Your task to perform on an android device: turn off notifications settings in the gmail app Image 0: 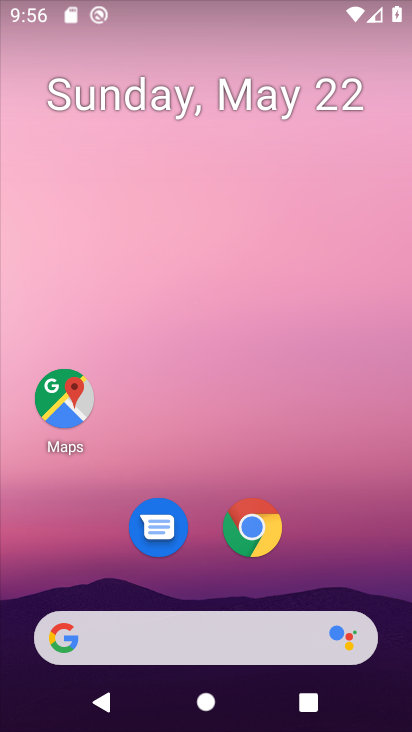
Step 0: drag from (254, 632) to (329, 135)
Your task to perform on an android device: turn off notifications settings in the gmail app Image 1: 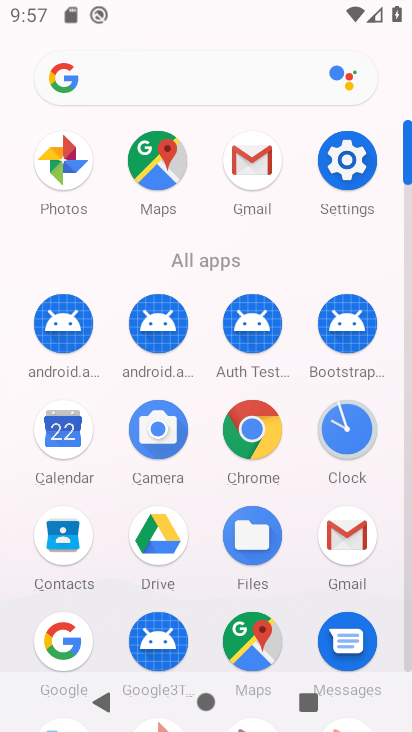
Step 1: click (254, 180)
Your task to perform on an android device: turn off notifications settings in the gmail app Image 2: 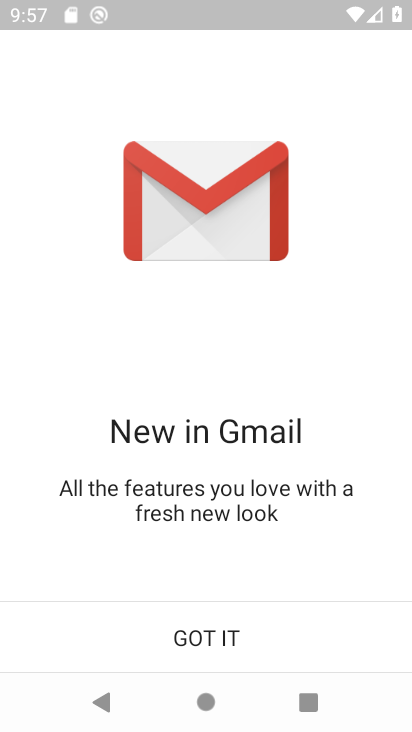
Step 2: click (215, 643)
Your task to perform on an android device: turn off notifications settings in the gmail app Image 3: 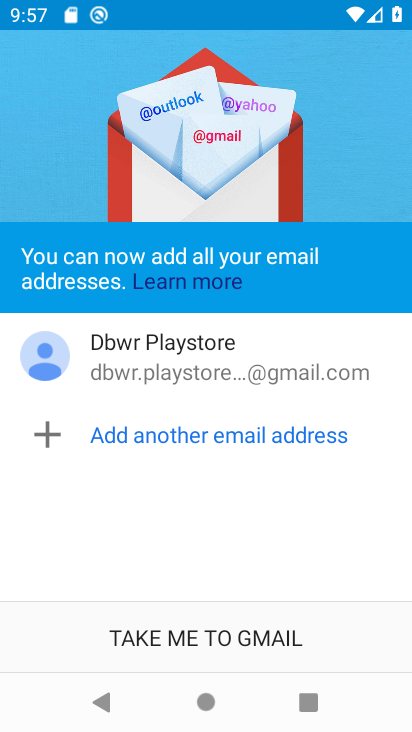
Step 3: click (217, 636)
Your task to perform on an android device: turn off notifications settings in the gmail app Image 4: 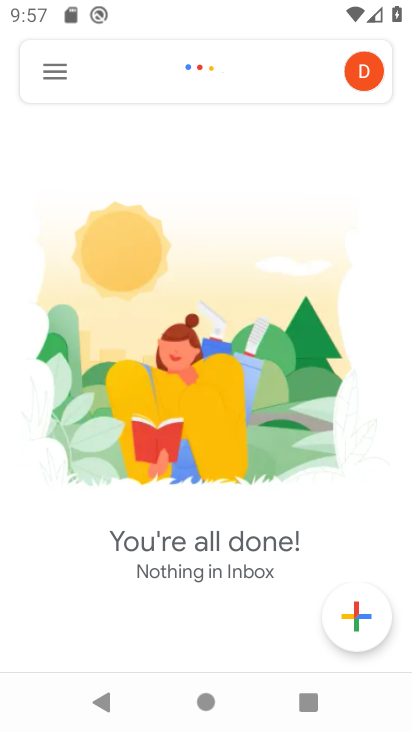
Step 4: click (65, 87)
Your task to perform on an android device: turn off notifications settings in the gmail app Image 5: 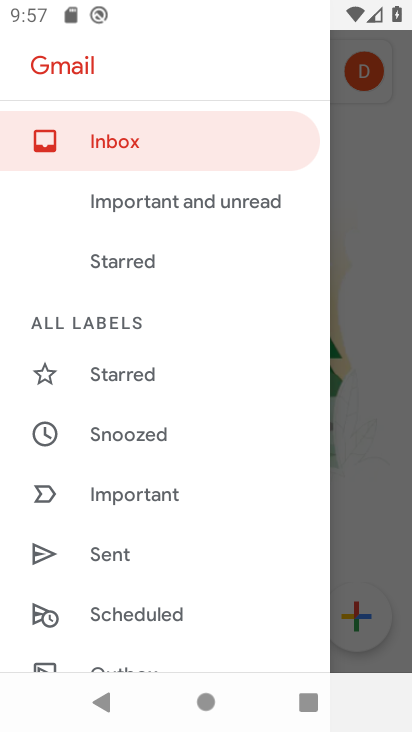
Step 5: drag from (114, 554) to (198, 121)
Your task to perform on an android device: turn off notifications settings in the gmail app Image 6: 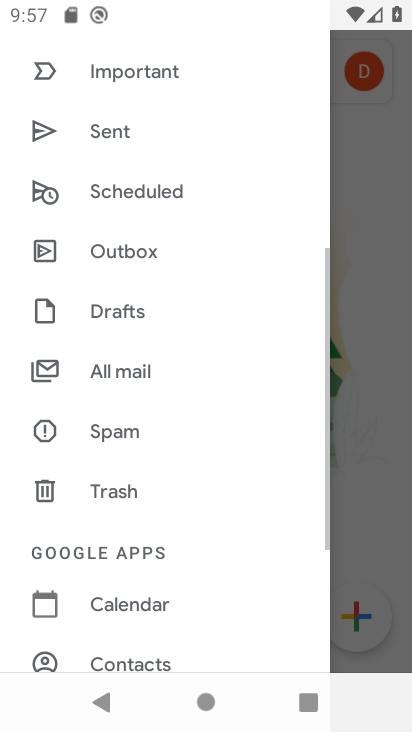
Step 6: drag from (117, 537) to (166, 140)
Your task to perform on an android device: turn off notifications settings in the gmail app Image 7: 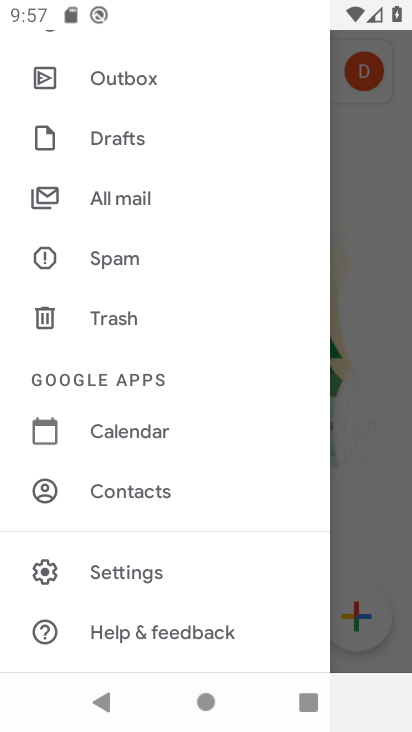
Step 7: click (120, 576)
Your task to perform on an android device: turn off notifications settings in the gmail app Image 8: 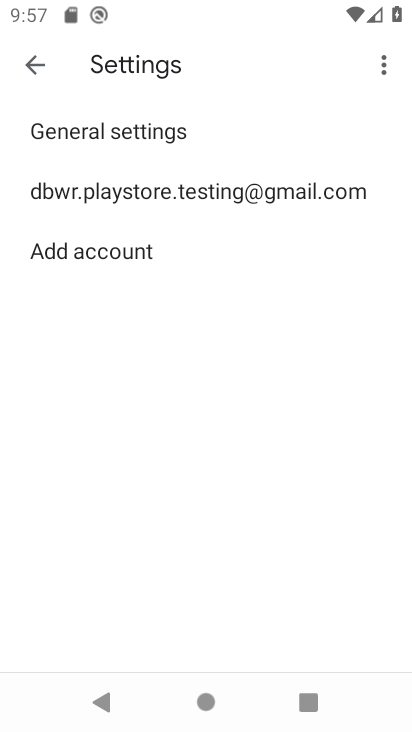
Step 8: click (176, 135)
Your task to perform on an android device: turn off notifications settings in the gmail app Image 9: 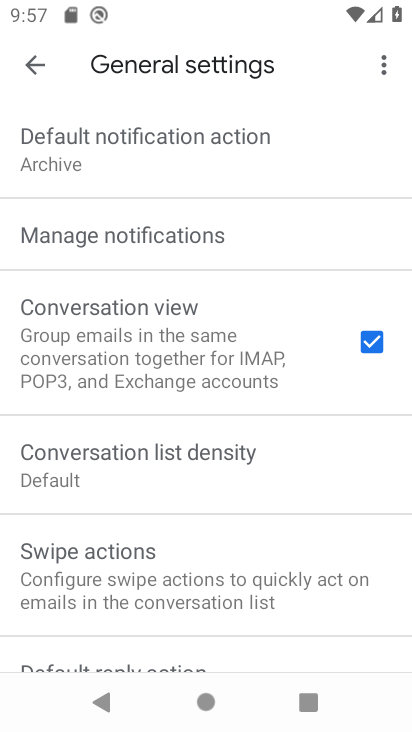
Step 9: click (201, 237)
Your task to perform on an android device: turn off notifications settings in the gmail app Image 10: 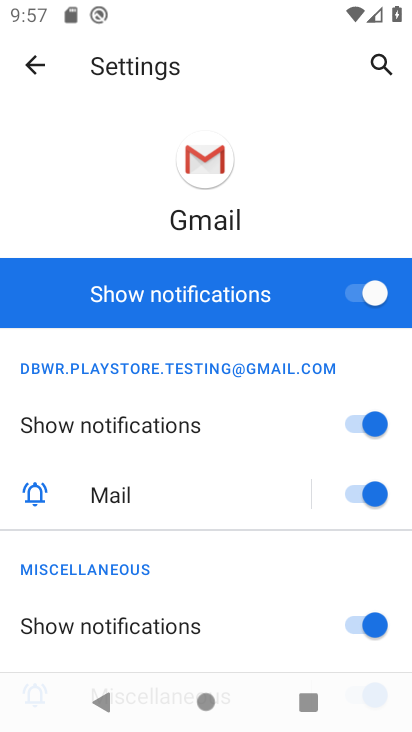
Step 10: click (351, 297)
Your task to perform on an android device: turn off notifications settings in the gmail app Image 11: 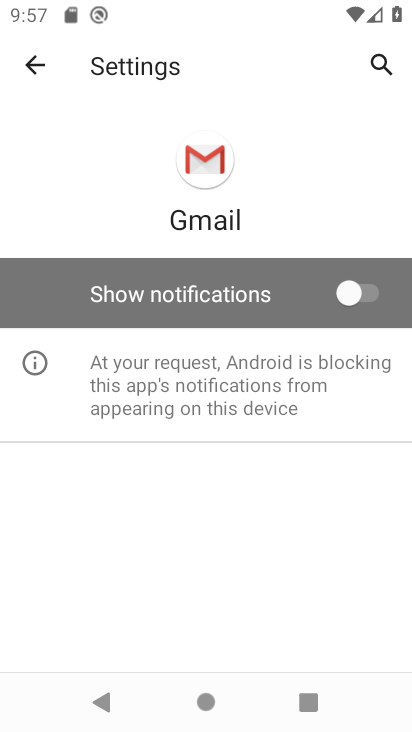
Step 11: task complete